Your task to perform on an android device: Go to Google Image 0: 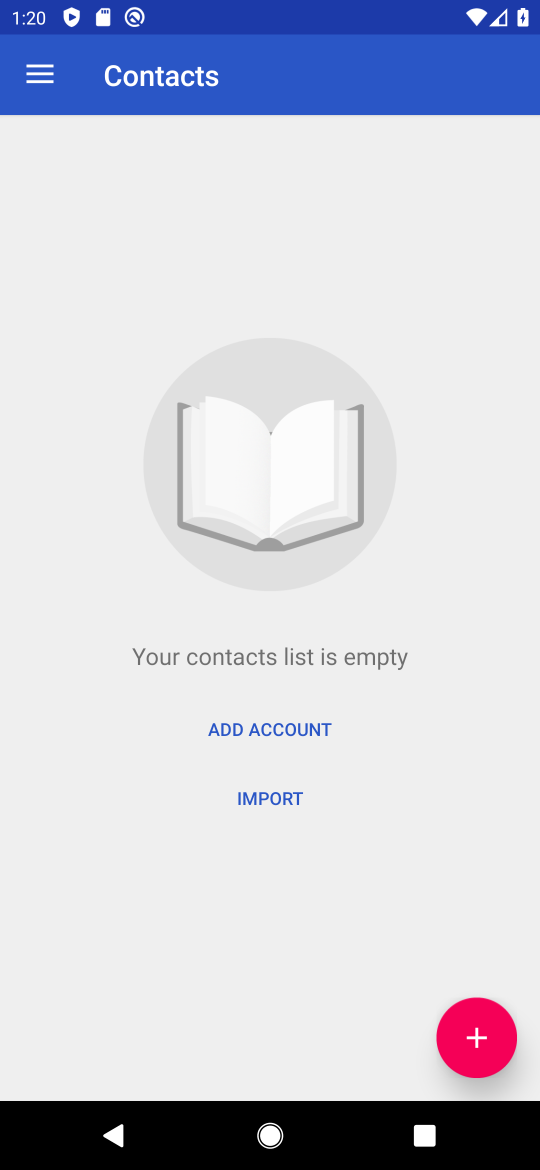
Step 0: press home button
Your task to perform on an android device: Go to Google Image 1: 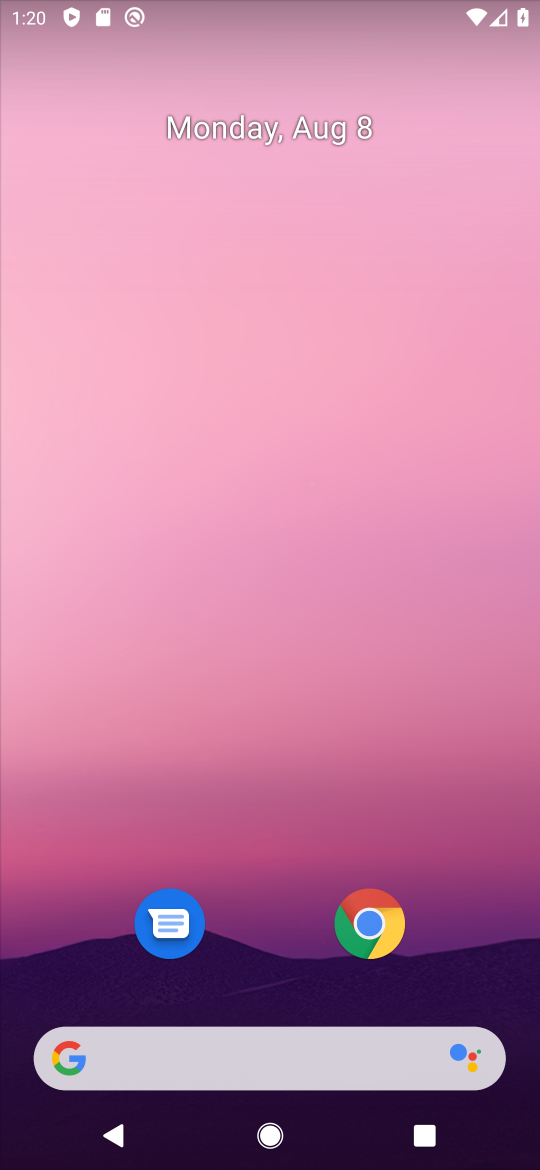
Step 1: click (290, 1068)
Your task to perform on an android device: Go to Google Image 2: 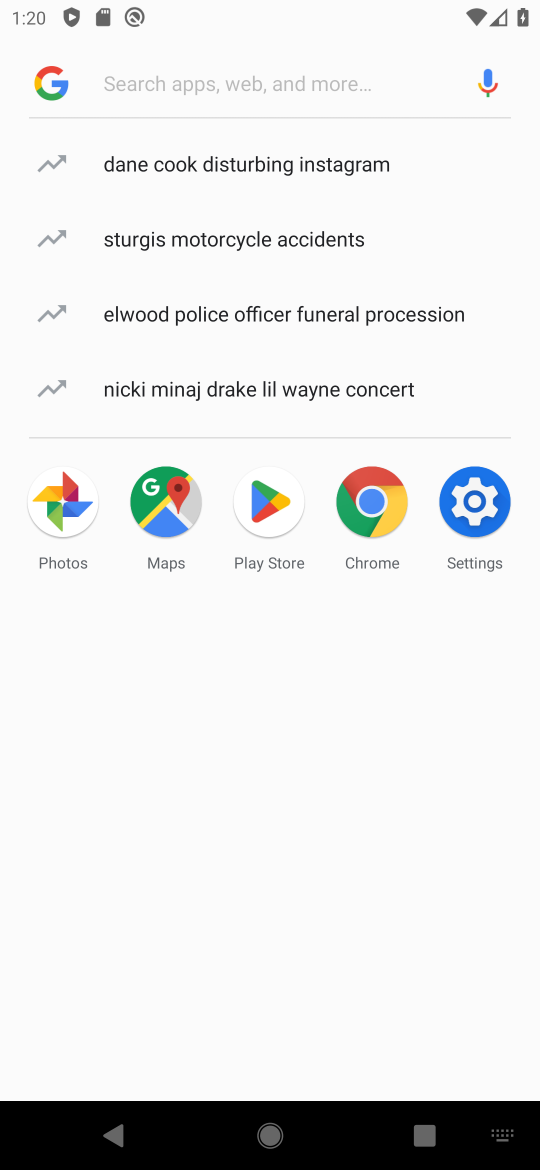
Step 2: task complete